Your task to perform on an android device: turn off wifi Image 0: 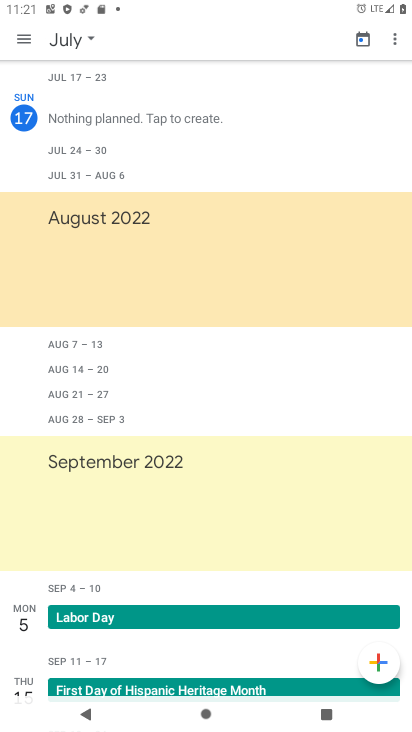
Step 0: press home button
Your task to perform on an android device: turn off wifi Image 1: 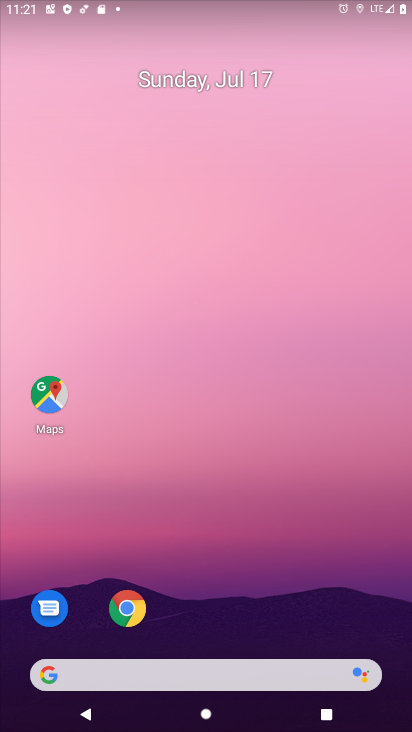
Step 1: drag from (215, 635) to (88, 28)
Your task to perform on an android device: turn off wifi Image 2: 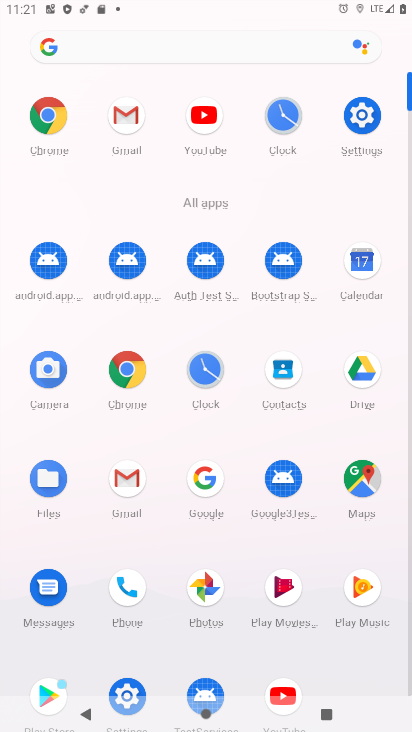
Step 2: click (358, 114)
Your task to perform on an android device: turn off wifi Image 3: 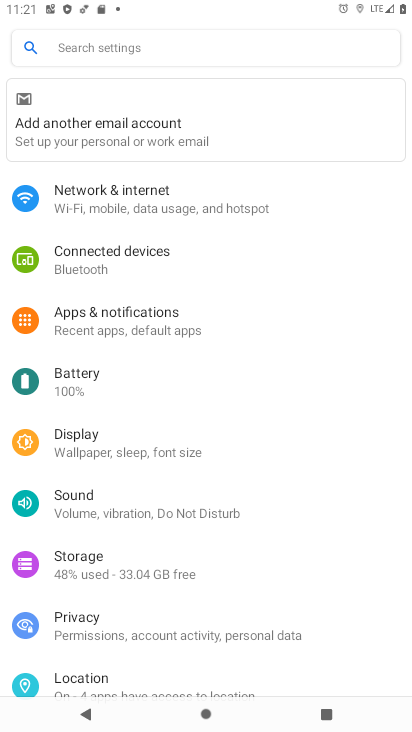
Step 3: click (159, 178)
Your task to perform on an android device: turn off wifi Image 4: 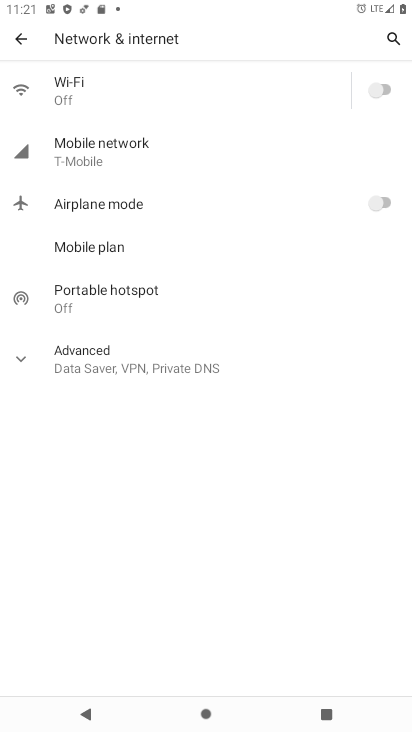
Step 4: click (136, 75)
Your task to perform on an android device: turn off wifi Image 5: 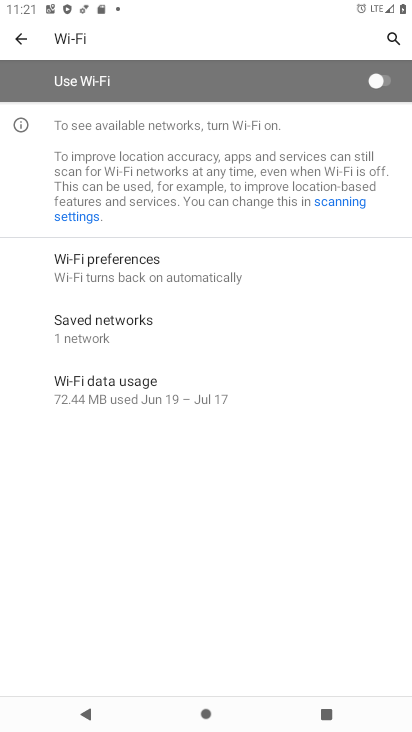
Step 5: task complete